Your task to perform on an android device: Go to accessibility settings Image 0: 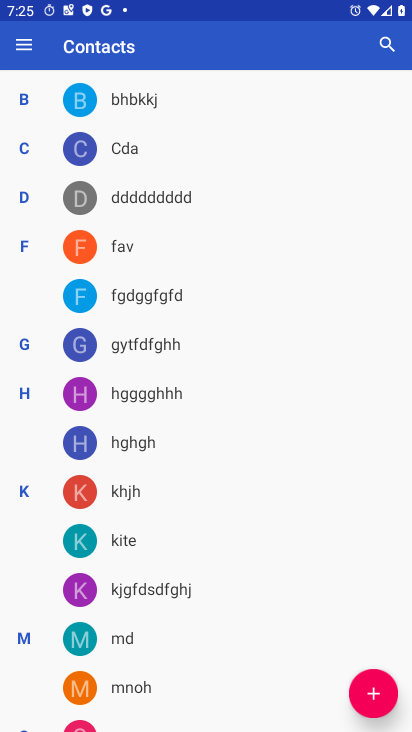
Step 0: press home button
Your task to perform on an android device: Go to accessibility settings Image 1: 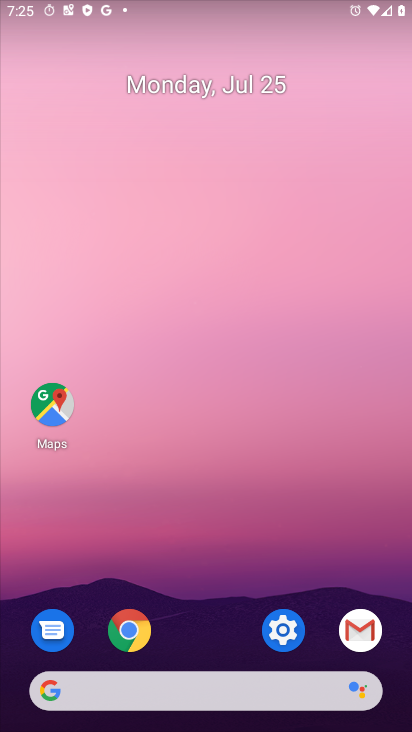
Step 1: click (282, 642)
Your task to perform on an android device: Go to accessibility settings Image 2: 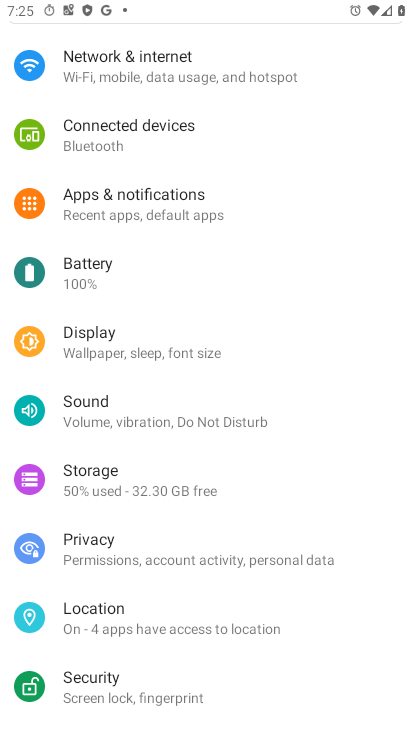
Step 2: drag from (122, 83) to (105, 312)
Your task to perform on an android device: Go to accessibility settings Image 3: 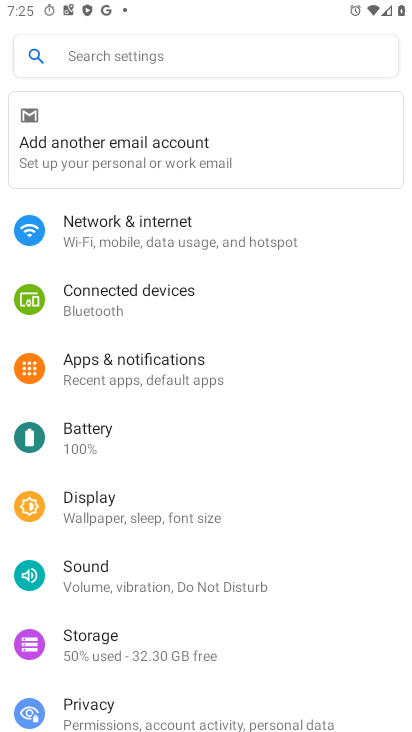
Step 3: click (79, 63)
Your task to perform on an android device: Go to accessibility settings Image 4: 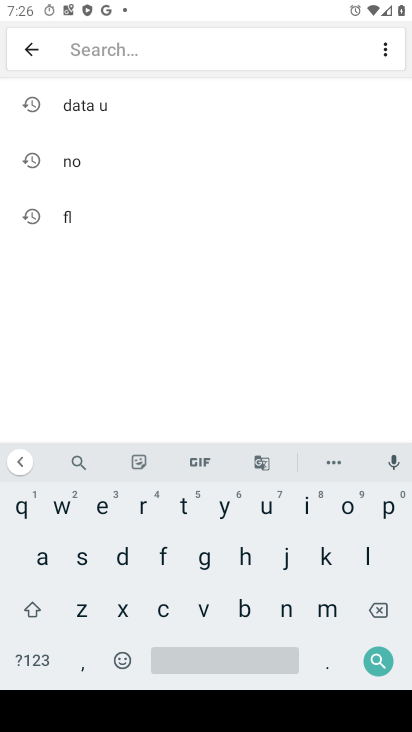
Step 4: click (35, 555)
Your task to perform on an android device: Go to accessibility settings Image 5: 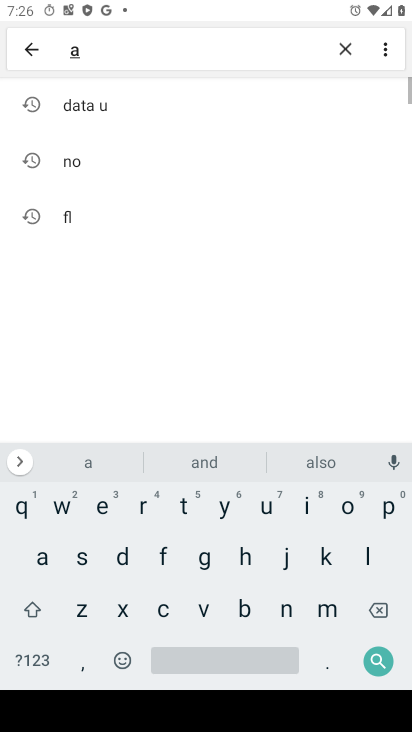
Step 5: click (155, 604)
Your task to perform on an android device: Go to accessibility settings Image 6: 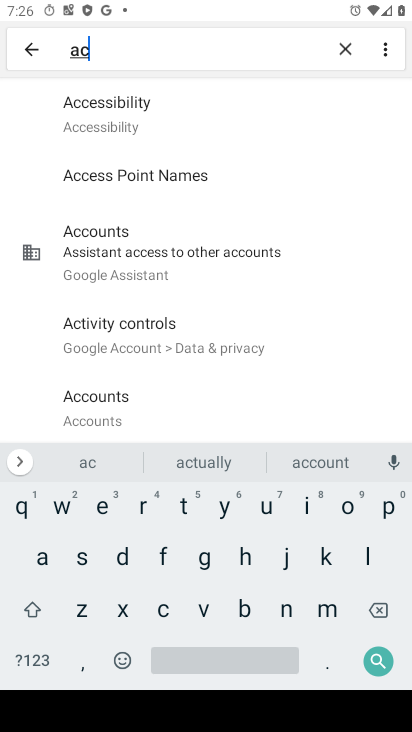
Step 6: click (150, 109)
Your task to perform on an android device: Go to accessibility settings Image 7: 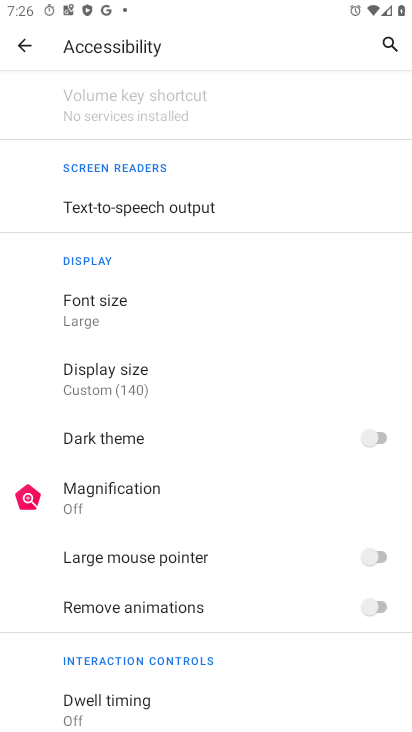
Step 7: task complete